Your task to perform on an android device: install app "Facebook" Image 0: 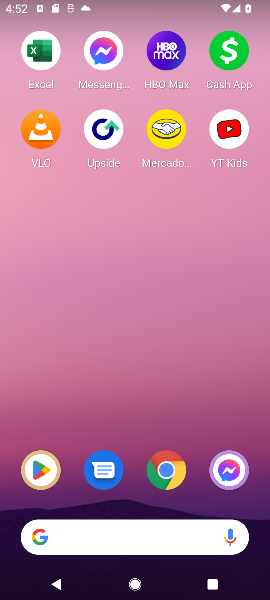
Step 0: click (36, 478)
Your task to perform on an android device: install app "Facebook" Image 1: 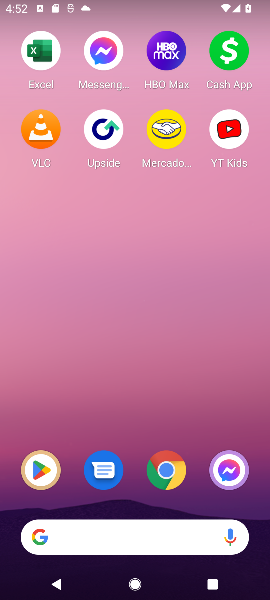
Step 1: click (36, 478)
Your task to perform on an android device: install app "Facebook" Image 2: 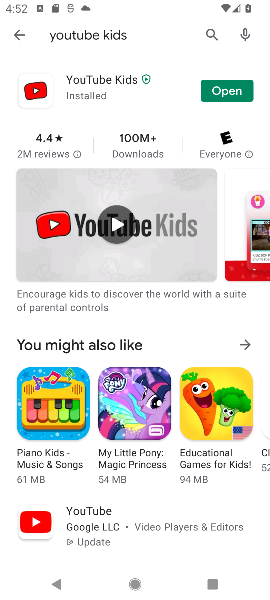
Step 2: click (212, 39)
Your task to perform on an android device: install app "Facebook" Image 3: 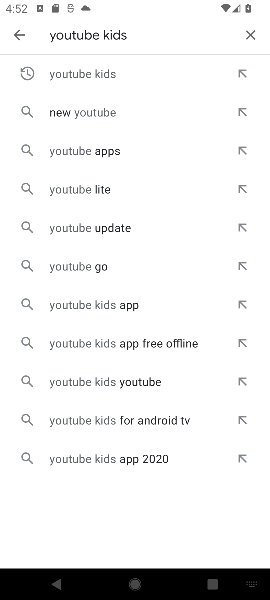
Step 3: click (254, 32)
Your task to perform on an android device: install app "Facebook" Image 4: 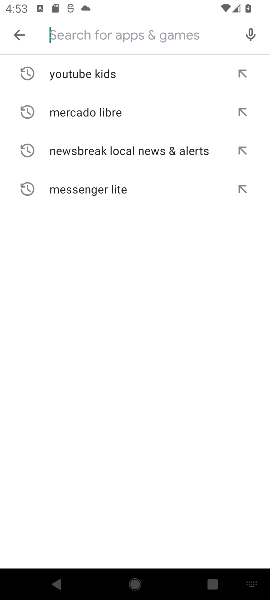
Step 4: type "Facebook"
Your task to perform on an android device: install app "Facebook" Image 5: 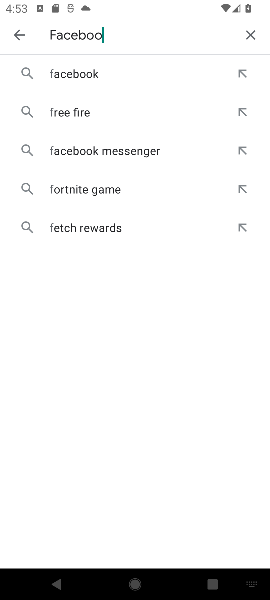
Step 5: type ""
Your task to perform on an android device: install app "Facebook" Image 6: 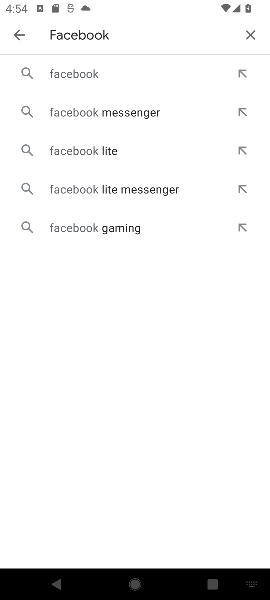
Step 6: click (74, 76)
Your task to perform on an android device: install app "Facebook" Image 7: 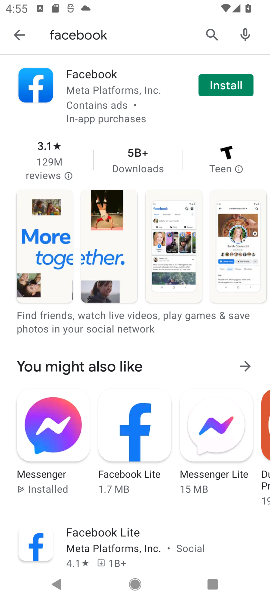
Step 7: click (223, 85)
Your task to perform on an android device: install app "Facebook" Image 8: 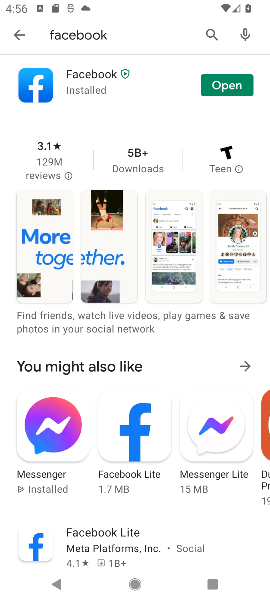
Step 8: task complete